Your task to perform on an android device: read, delete, or share a saved page in the chrome app Image 0: 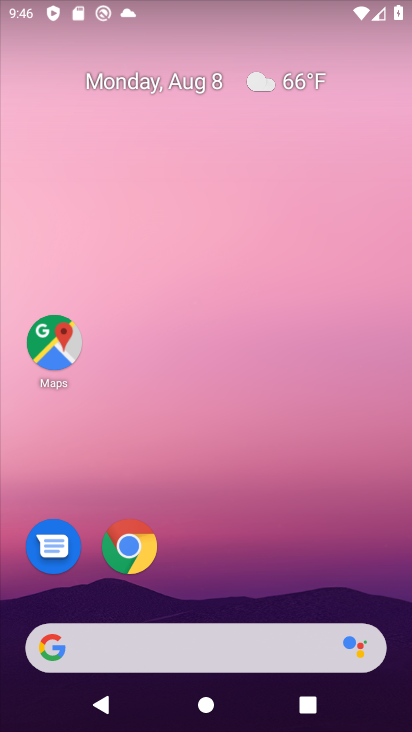
Step 0: drag from (233, 476) to (251, 189)
Your task to perform on an android device: read, delete, or share a saved page in the chrome app Image 1: 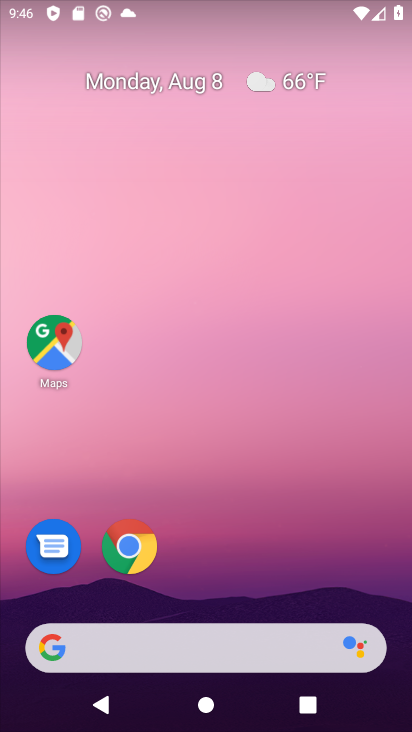
Step 1: click (144, 533)
Your task to perform on an android device: read, delete, or share a saved page in the chrome app Image 2: 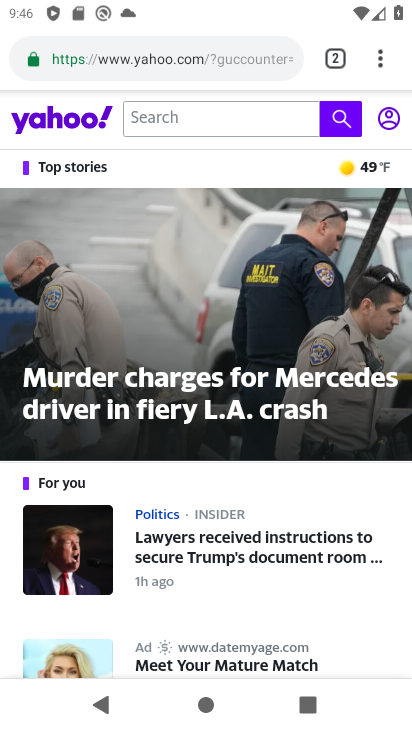
Step 2: task complete